Your task to perform on an android device: Search for sushi restaurants on Maps Image 0: 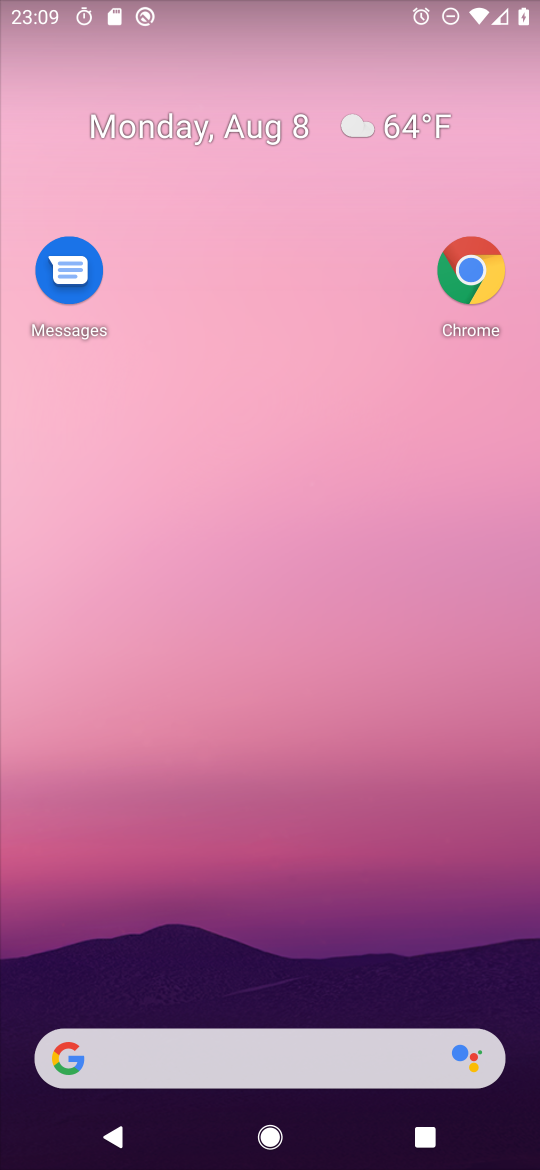
Step 0: drag from (256, 926) to (410, 11)
Your task to perform on an android device: Search for sushi restaurants on Maps Image 1: 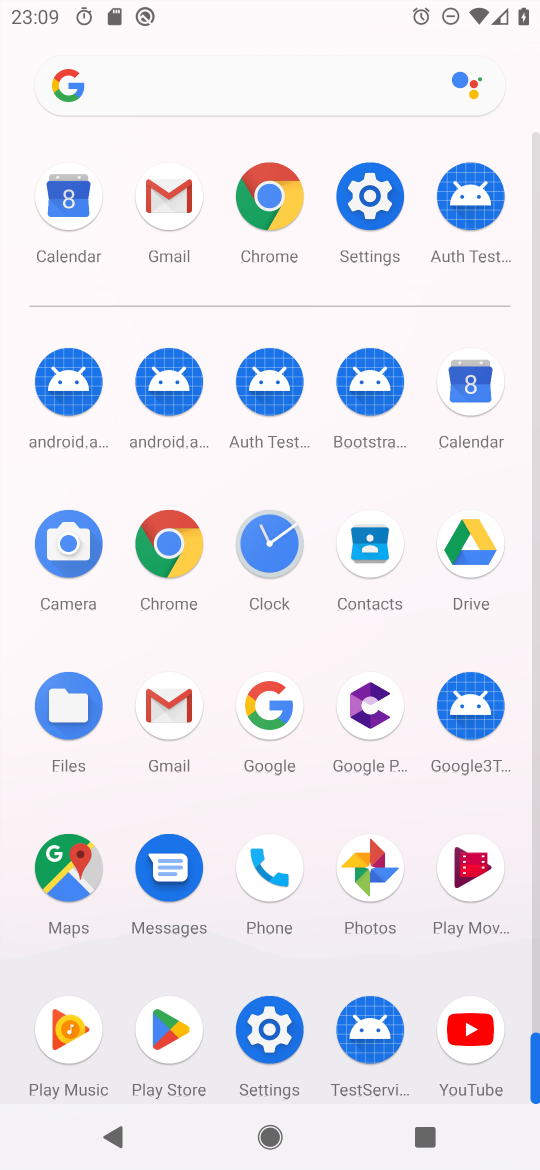
Step 1: click (52, 878)
Your task to perform on an android device: Search for sushi restaurants on Maps Image 2: 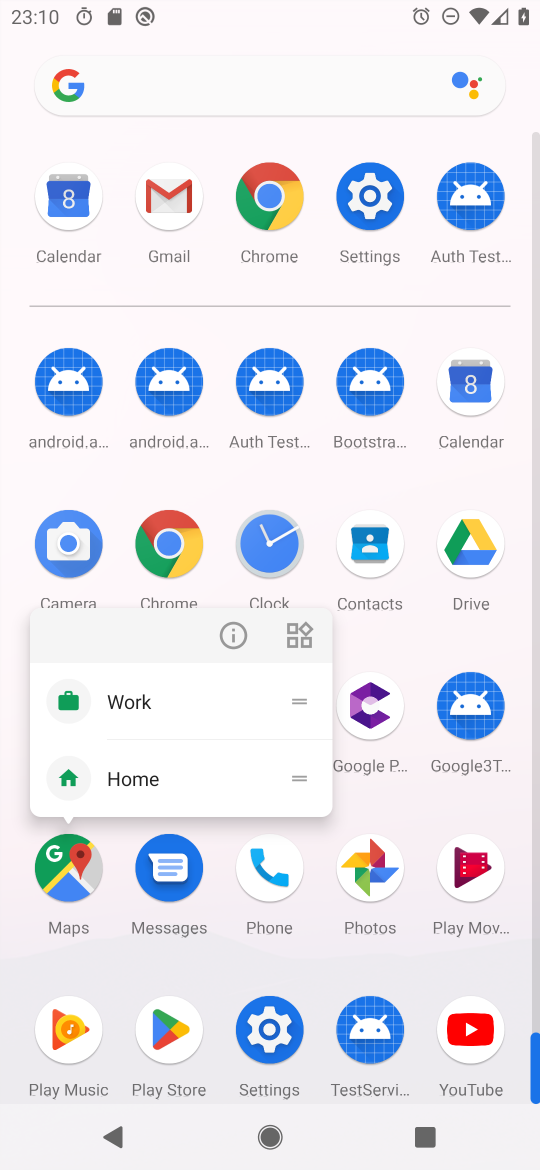
Step 2: click (239, 635)
Your task to perform on an android device: Search for sushi restaurants on Maps Image 3: 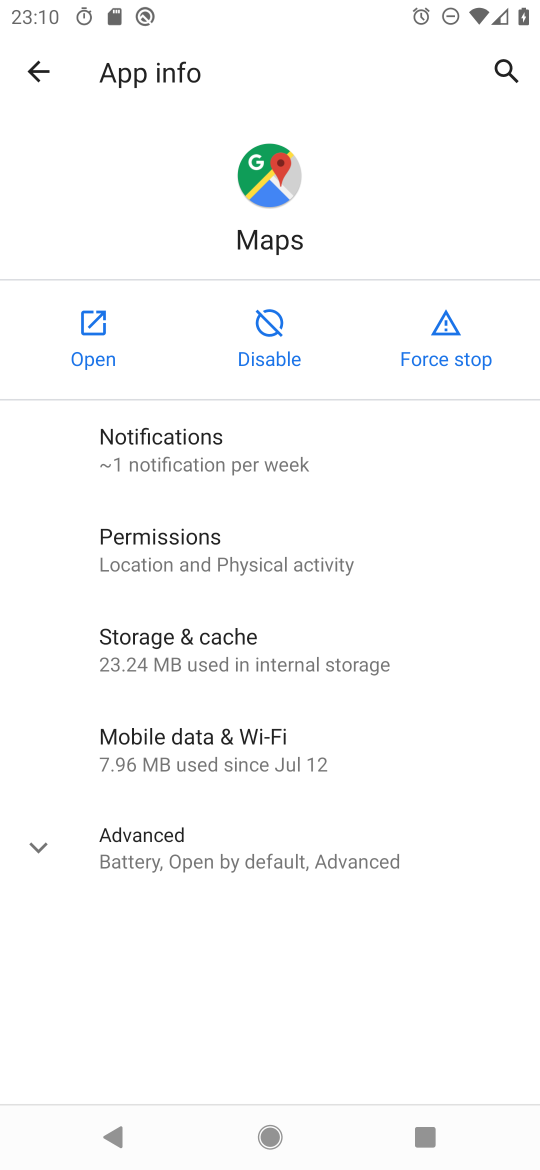
Step 3: click (80, 351)
Your task to perform on an android device: Search for sushi restaurants on Maps Image 4: 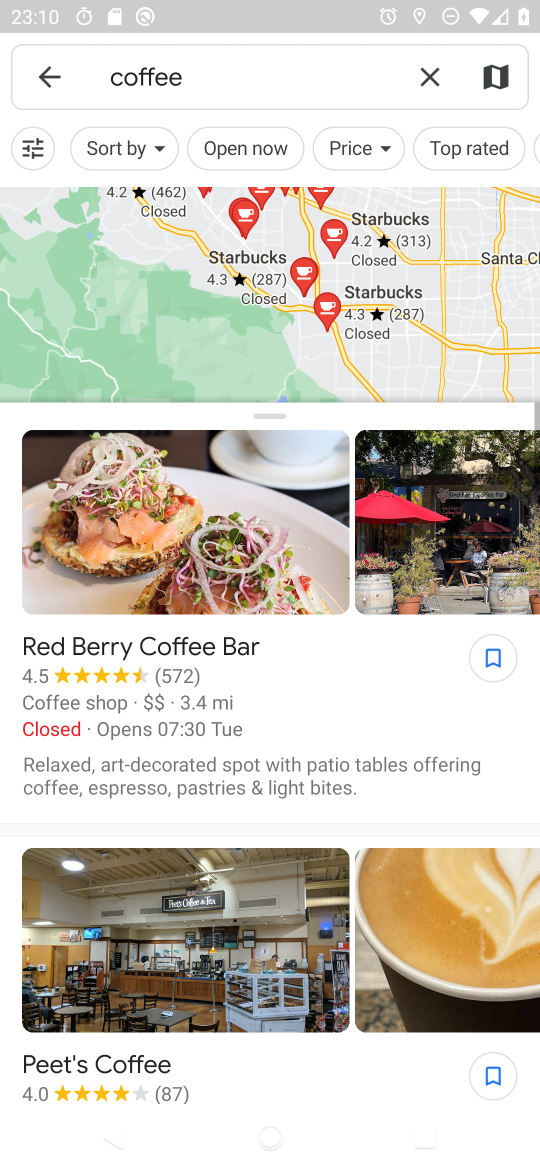
Step 4: click (432, 72)
Your task to perform on an android device: Search for sushi restaurants on Maps Image 5: 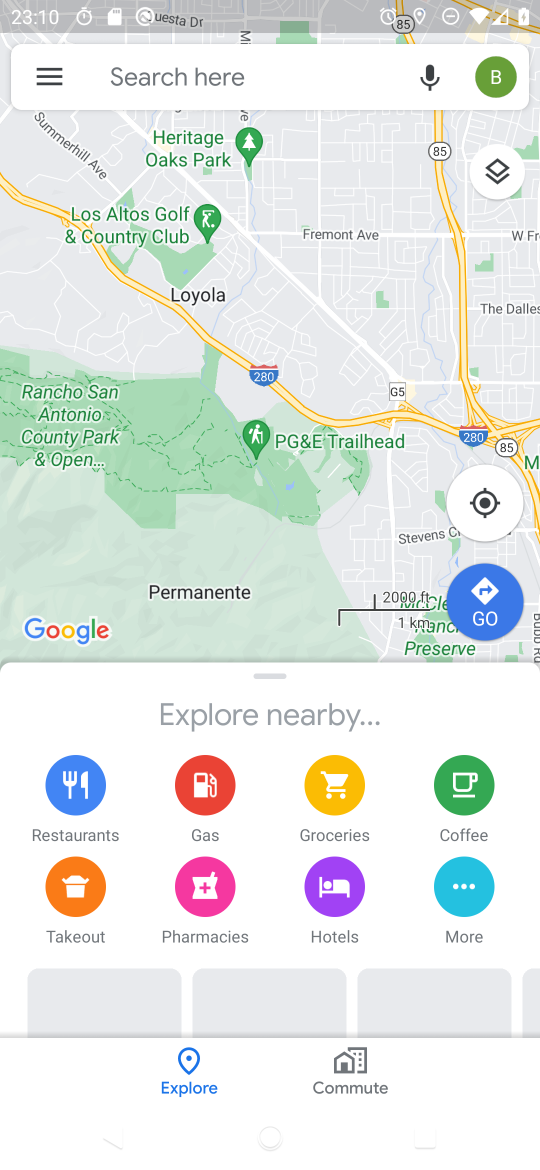
Step 5: click (203, 45)
Your task to perform on an android device: Search for sushi restaurants on Maps Image 6: 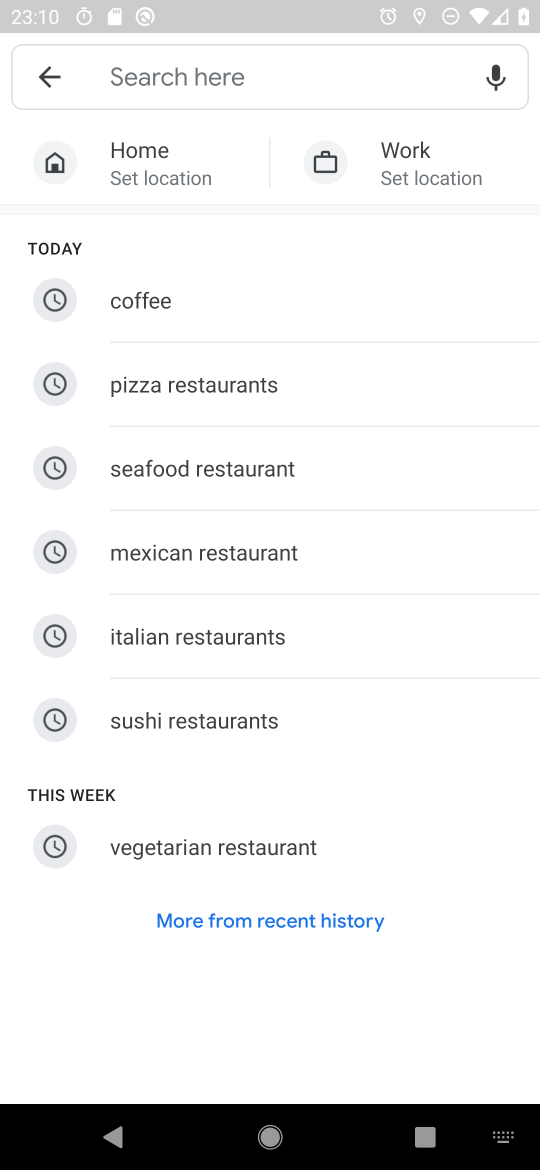
Step 6: click (128, 738)
Your task to perform on an android device: Search for sushi restaurants on Maps Image 7: 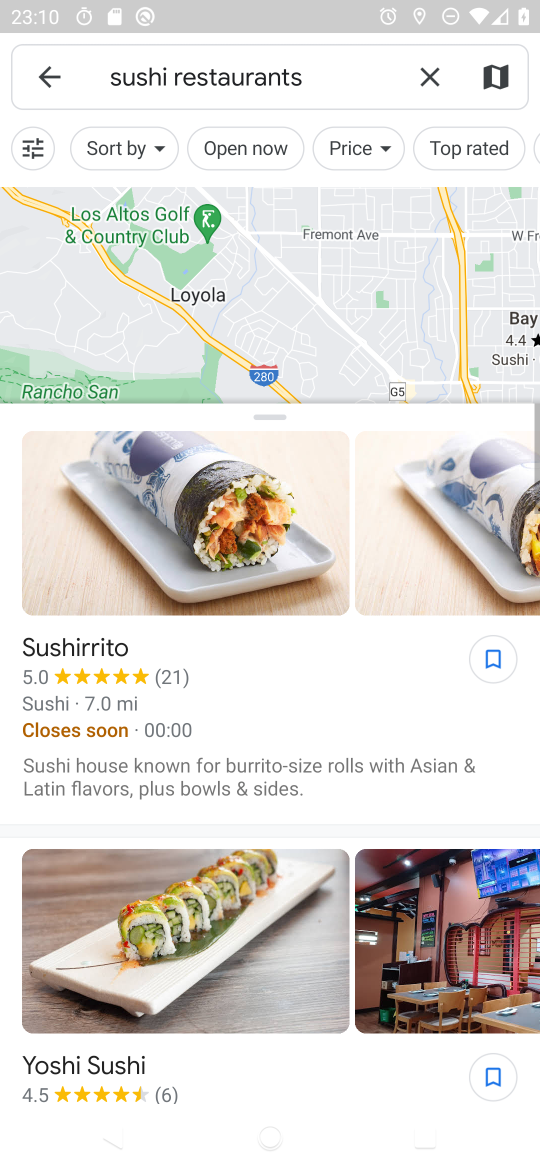
Step 7: task complete